Your task to perform on an android device: move an email to a new category in the gmail app Image 0: 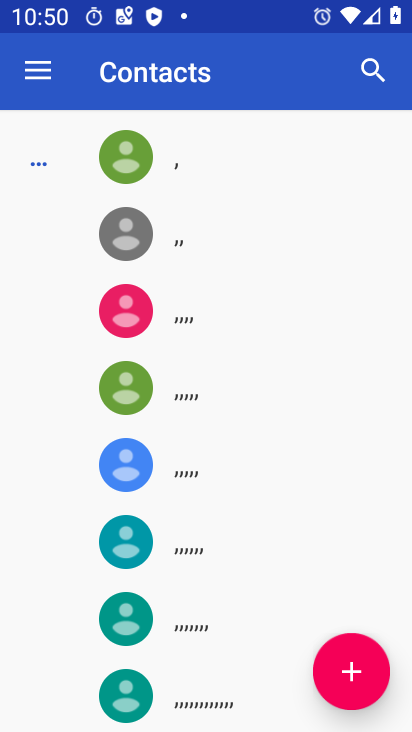
Step 0: press home button
Your task to perform on an android device: move an email to a new category in the gmail app Image 1: 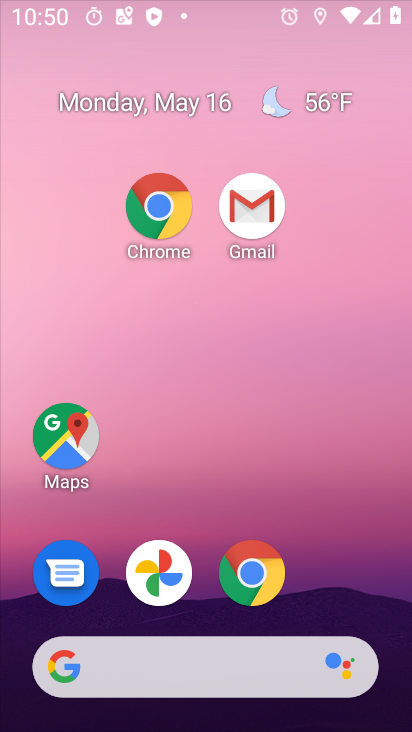
Step 1: press home button
Your task to perform on an android device: move an email to a new category in the gmail app Image 2: 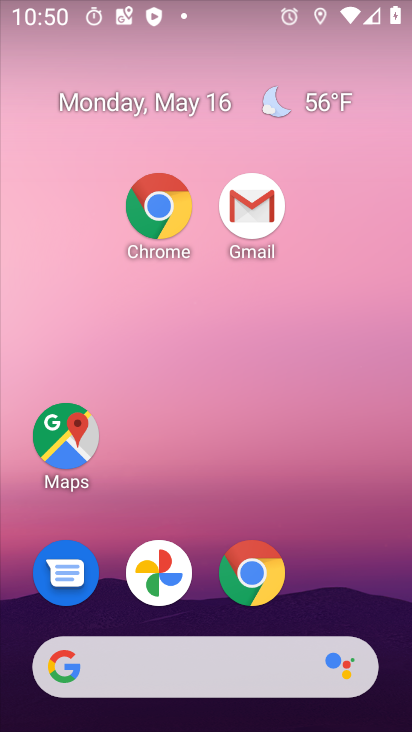
Step 2: drag from (324, 574) to (217, 24)
Your task to perform on an android device: move an email to a new category in the gmail app Image 3: 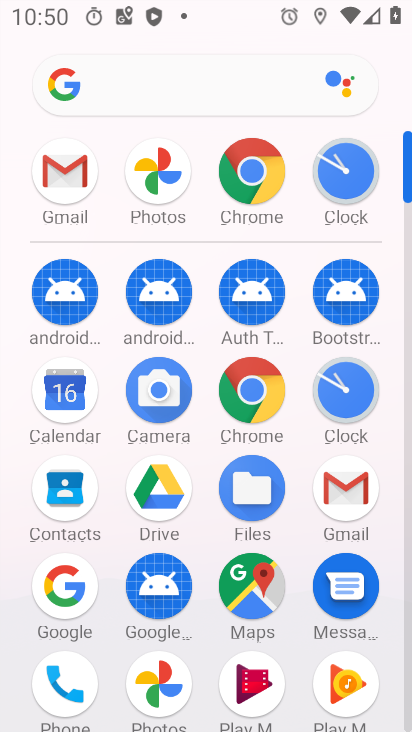
Step 3: click (347, 502)
Your task to perform on an android device: move an email to a new category in the gmail app Image 4: 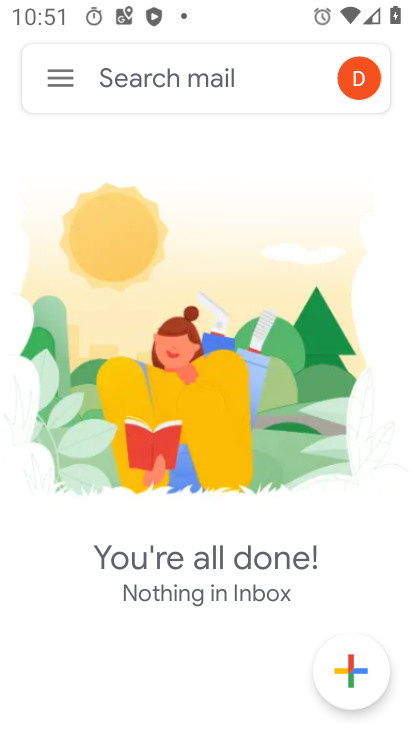
Step 4: click (48, 77)
Your task to perform on an android device: move an email to a new category in the gmail app Image 5: 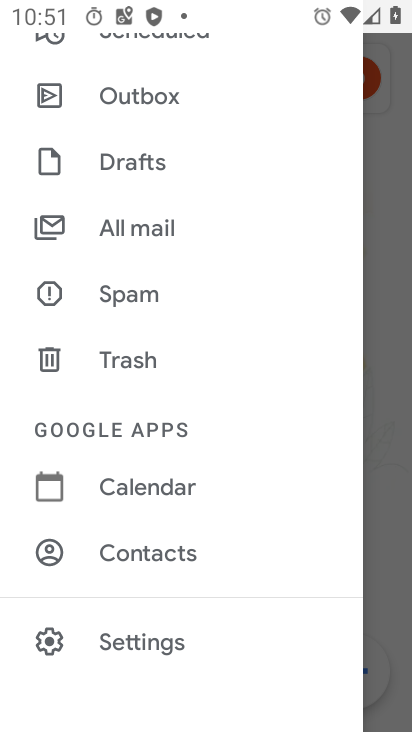
Step 5: click (123, 234)
Your task to perform on an android device: move an email to a new category in the gmail app Image 6: 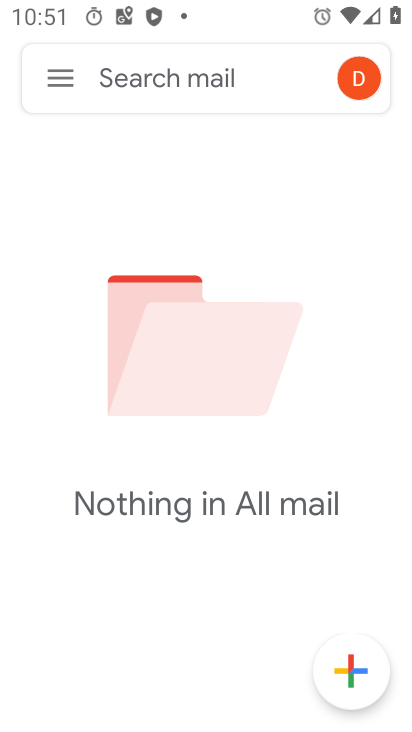
Step 6: task complete